Your task to perform on an android device: Open Reddit.com Image 0: 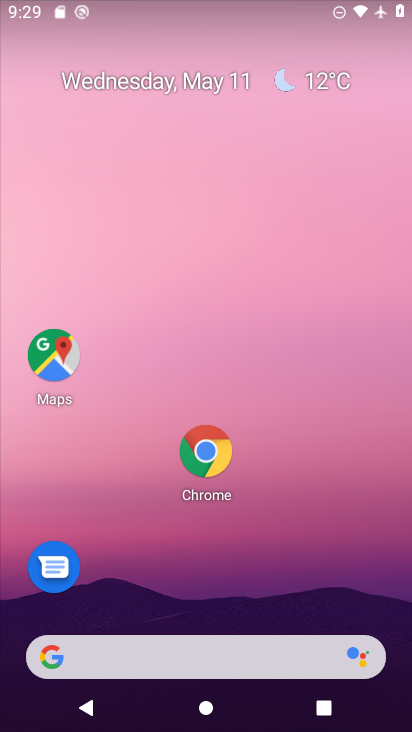
Step 0: drag from (155, 639) to (347, 66)
Your task to perform on an android device: Open Reddit.com Image 1: 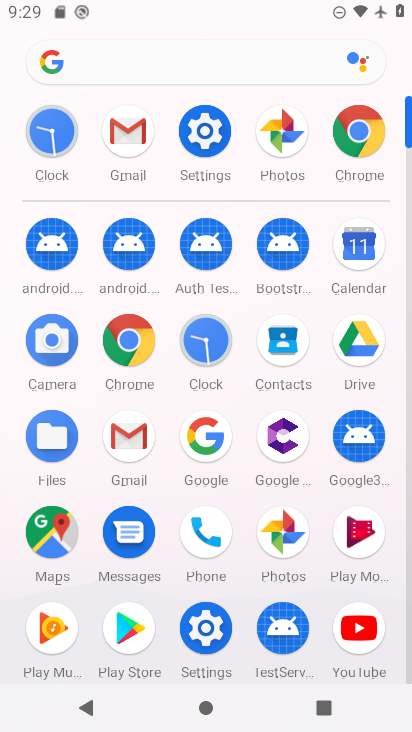
Step 1: click (363, 144)
Your task to perform on an android device: Open Reddit.com Image 2: 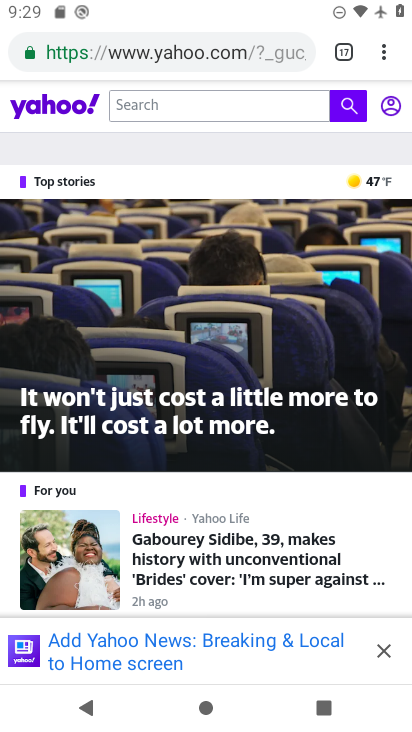
Step 2: drag from (385, 56) to (285, 101)
Your task to perform on an android device: Open Reddit.com Image 3: 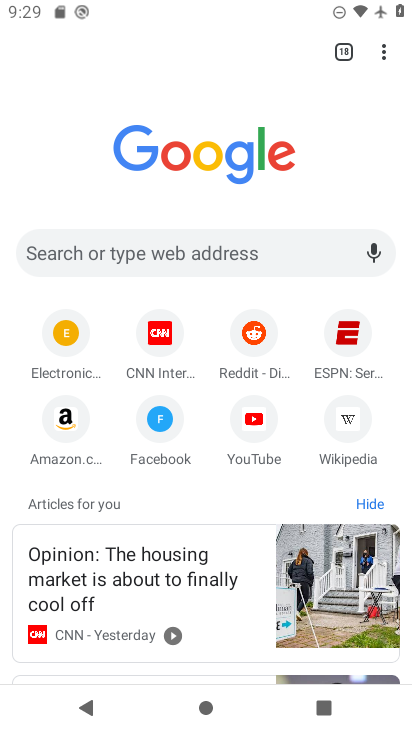
Step 3: click (259, 340)
Your task to perform on an android device: Open Reddit.com Image 4: 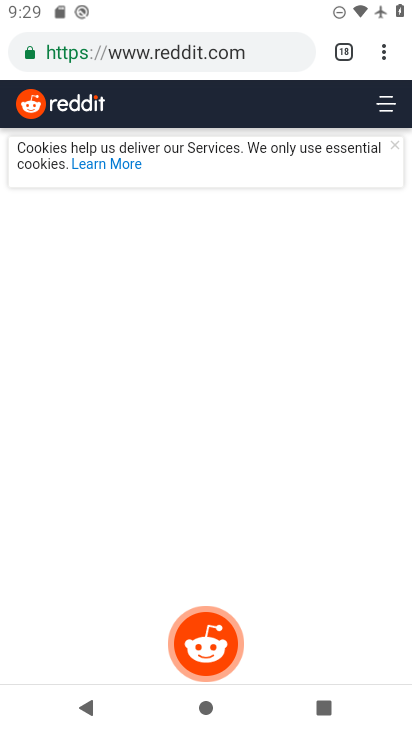
Step 4: task complete